Your task to perform on an android device: Open Google Chrome and open the bookmarks view Image 0: 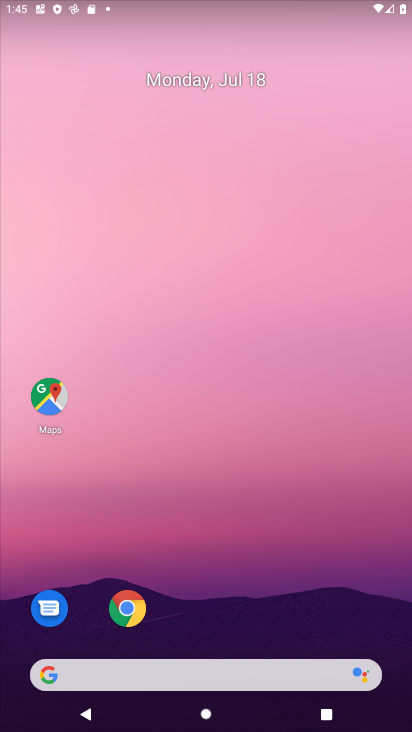
Step 0: drag from (341, 611) to (234, 16)
Your task to perform on an android device: Open Google Chrome and open the bookmarks view Image 1: 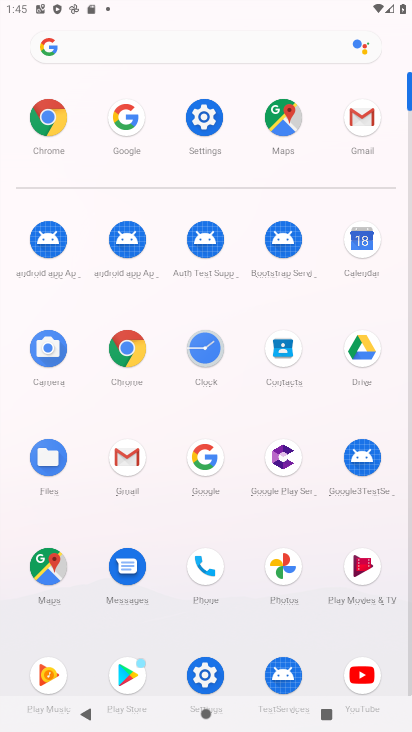
Step 1: click (48, 129)
Your task to perform on an android device: Open Google Chrome and open the bookmarks view Image 2: 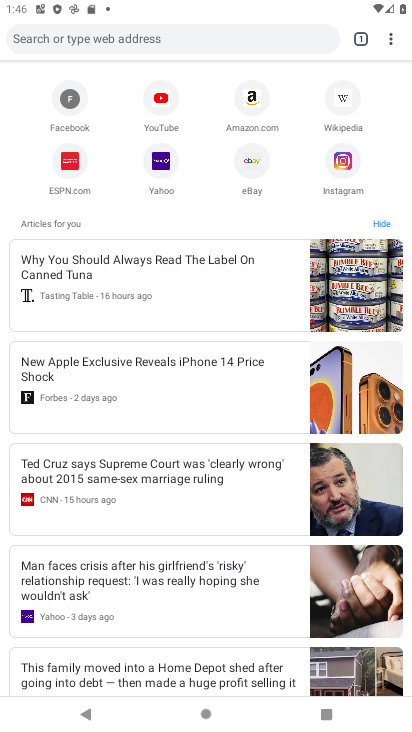
Step 2: click (388, 40)
Your task to perform on an android device: Open Google Chrome and open the bookmarks view Image 3: 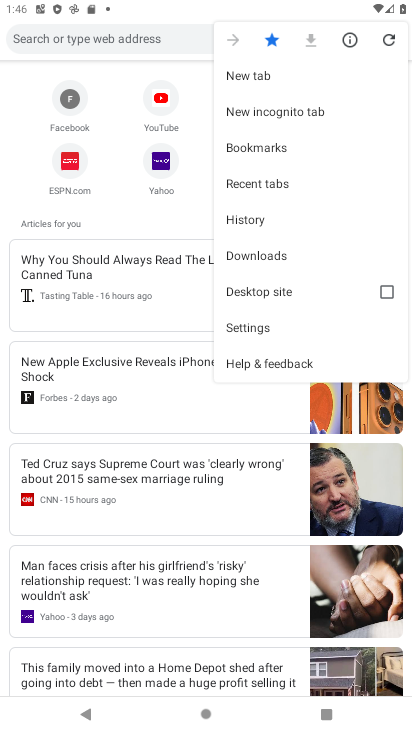
Step 3: click (236, 152)
Your task to perform on an android device: Open Google Chrome and open the bookmarks view Image 4: 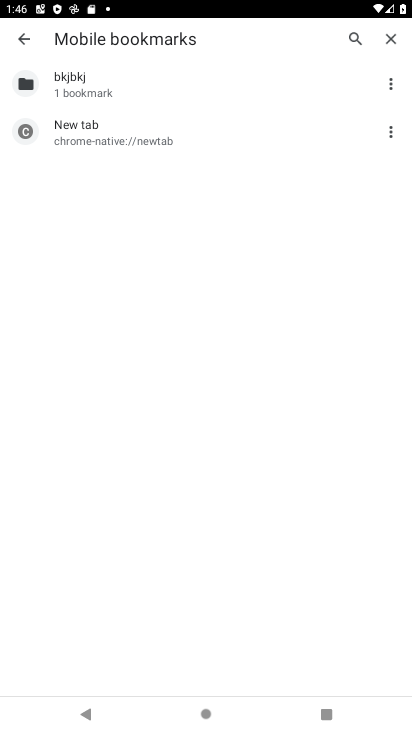
Step 4: task complete